Your task to perform on an android device: Open calendar and show me the second week of next month Image 0: 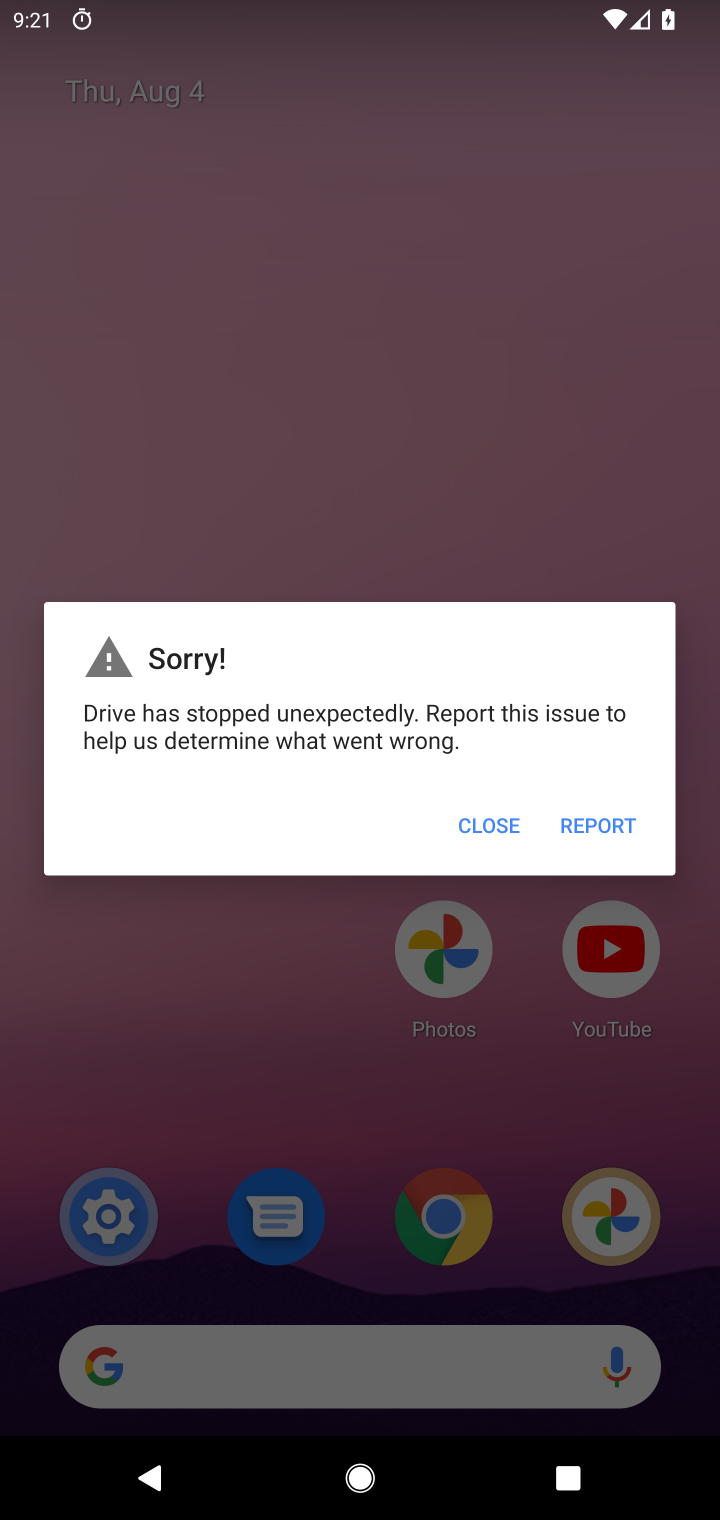
Step 0: press home button
Your task to perform on an android device: Open calendar and show me the second week of next month Image 1: 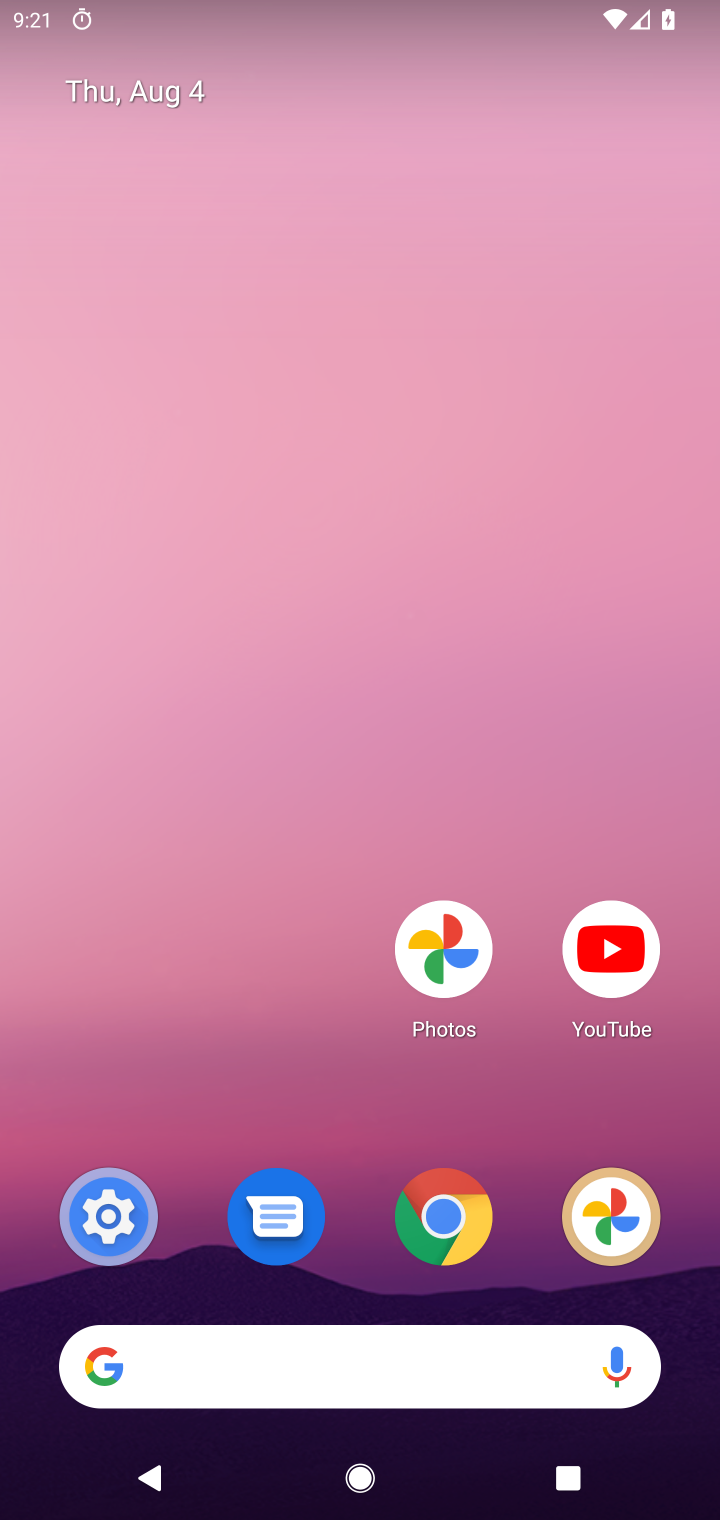
Step 1: drag from (368, 1202) to (336, 78)
Your task to perform on an android device: Open calendar and show me the second week of next month Image 2: 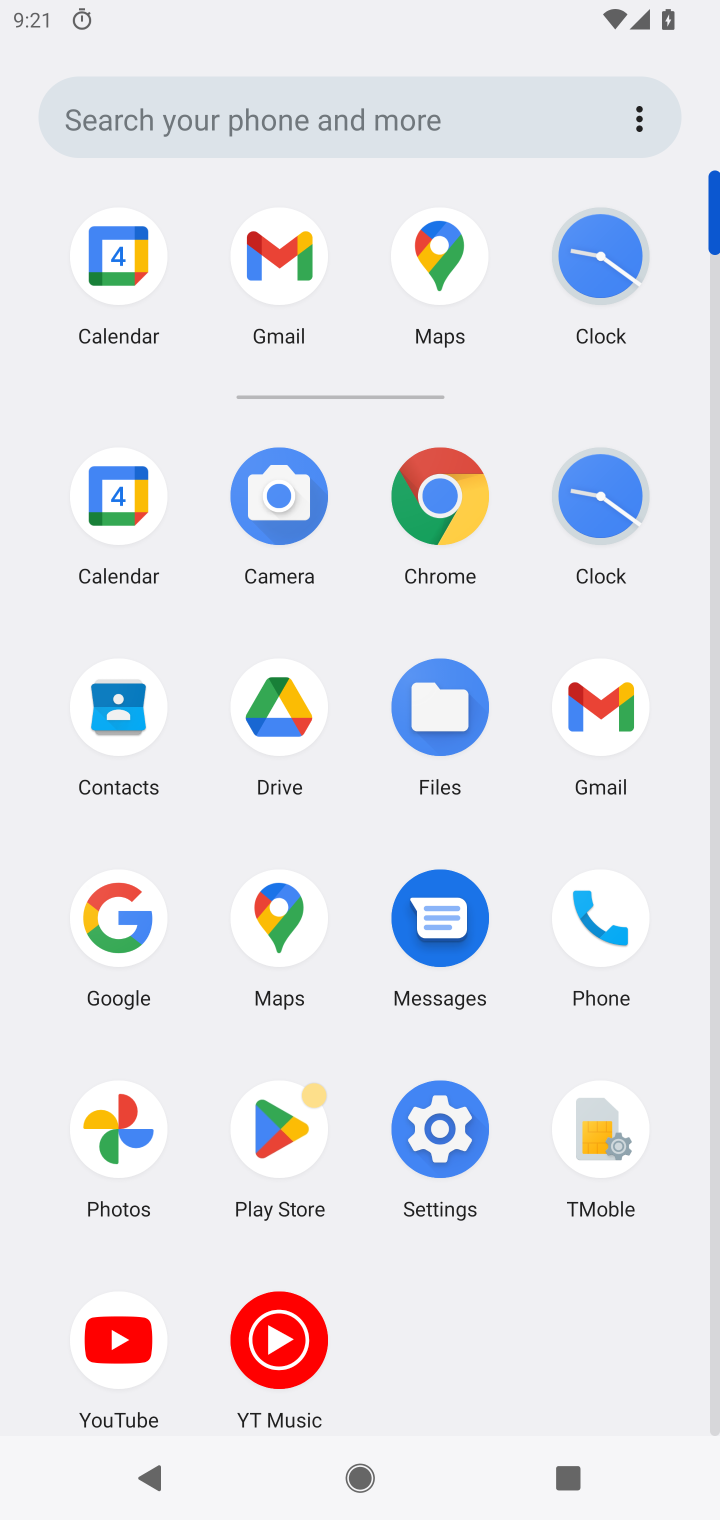
Step 2: click (119, 509)
Your task to perform on an android device: Open calendar and show me the second week of next month Image 3: 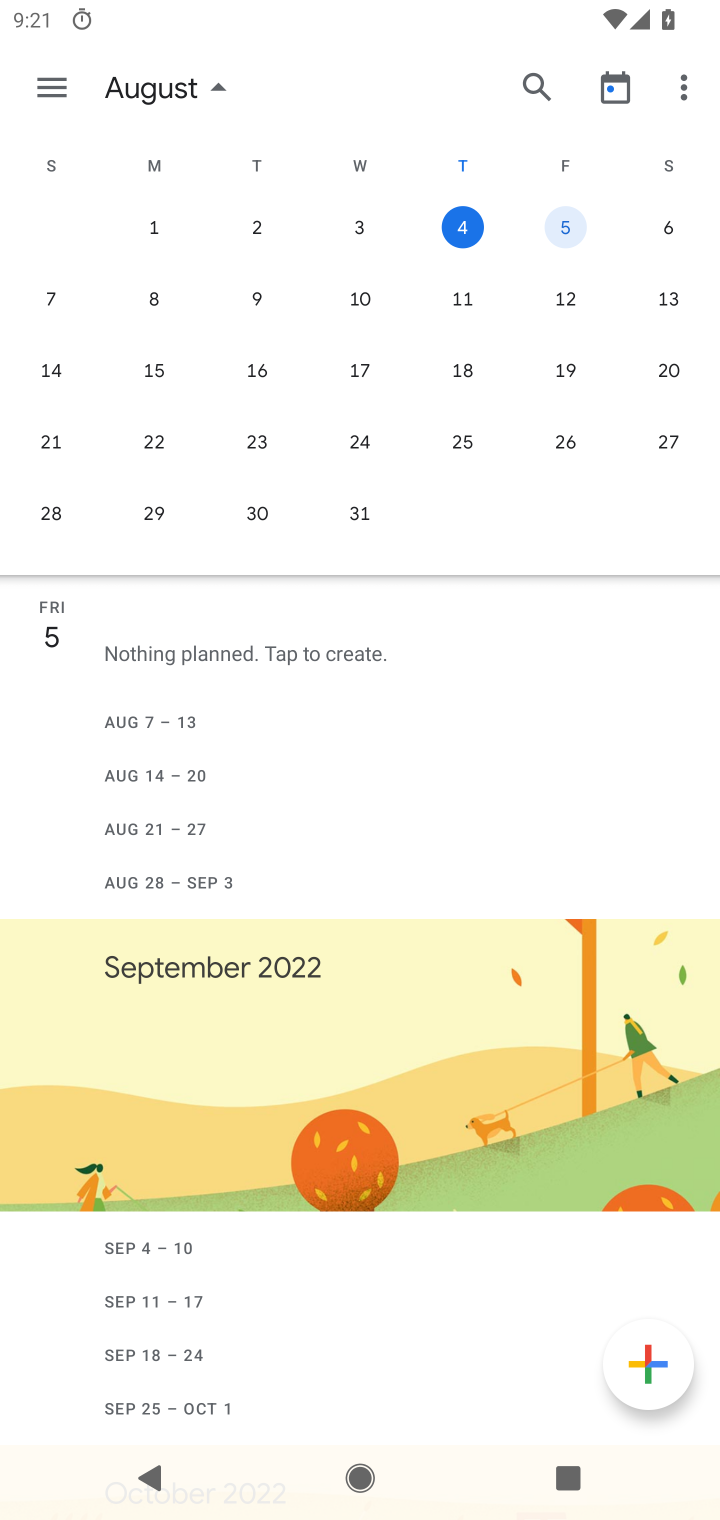
Step 3: drag from (574, 368) to (61, 324)
Your task to perform on an android device: Open calendar and show me the second week of next month Image 4: 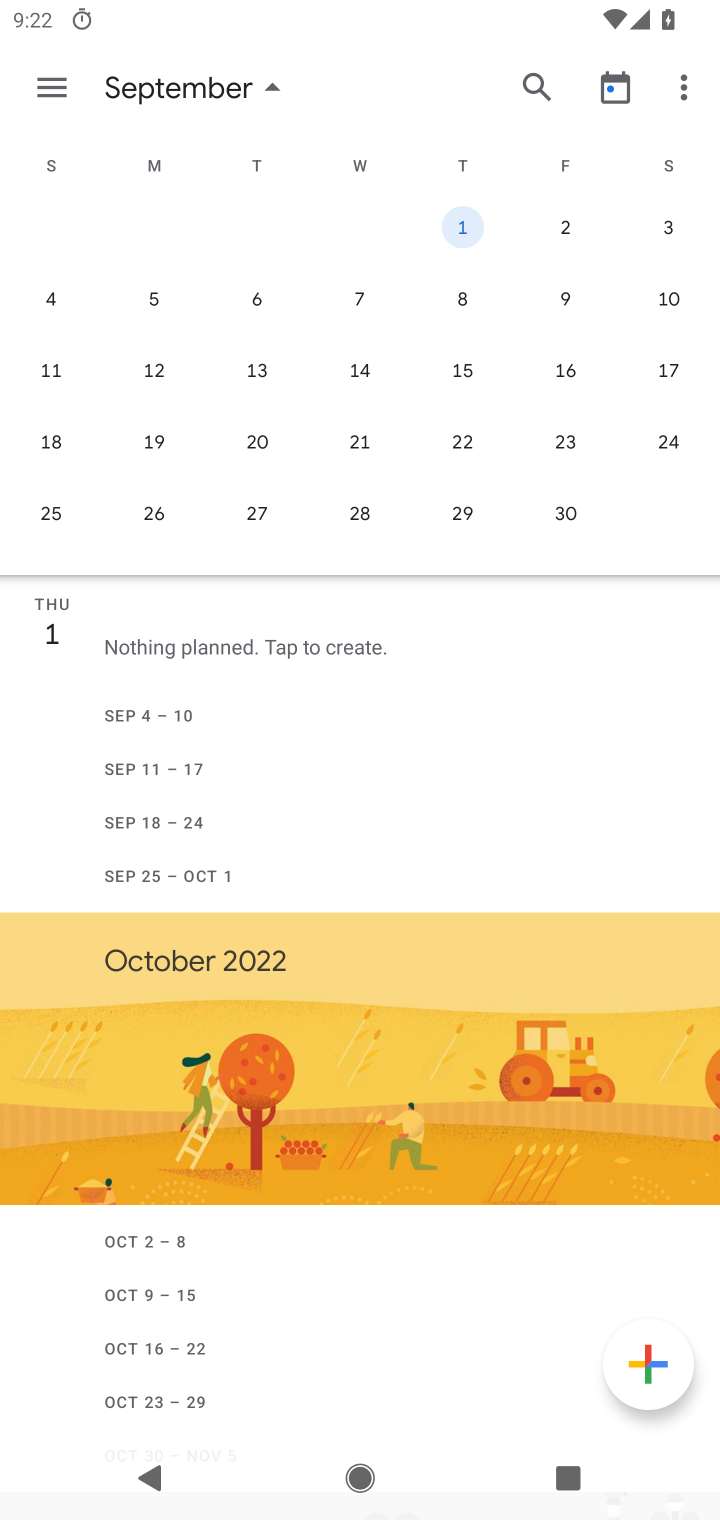
Step 4: click (160, 360)
Your task to perform on an android device: Open calendar and show me the second week of next month Image 5: 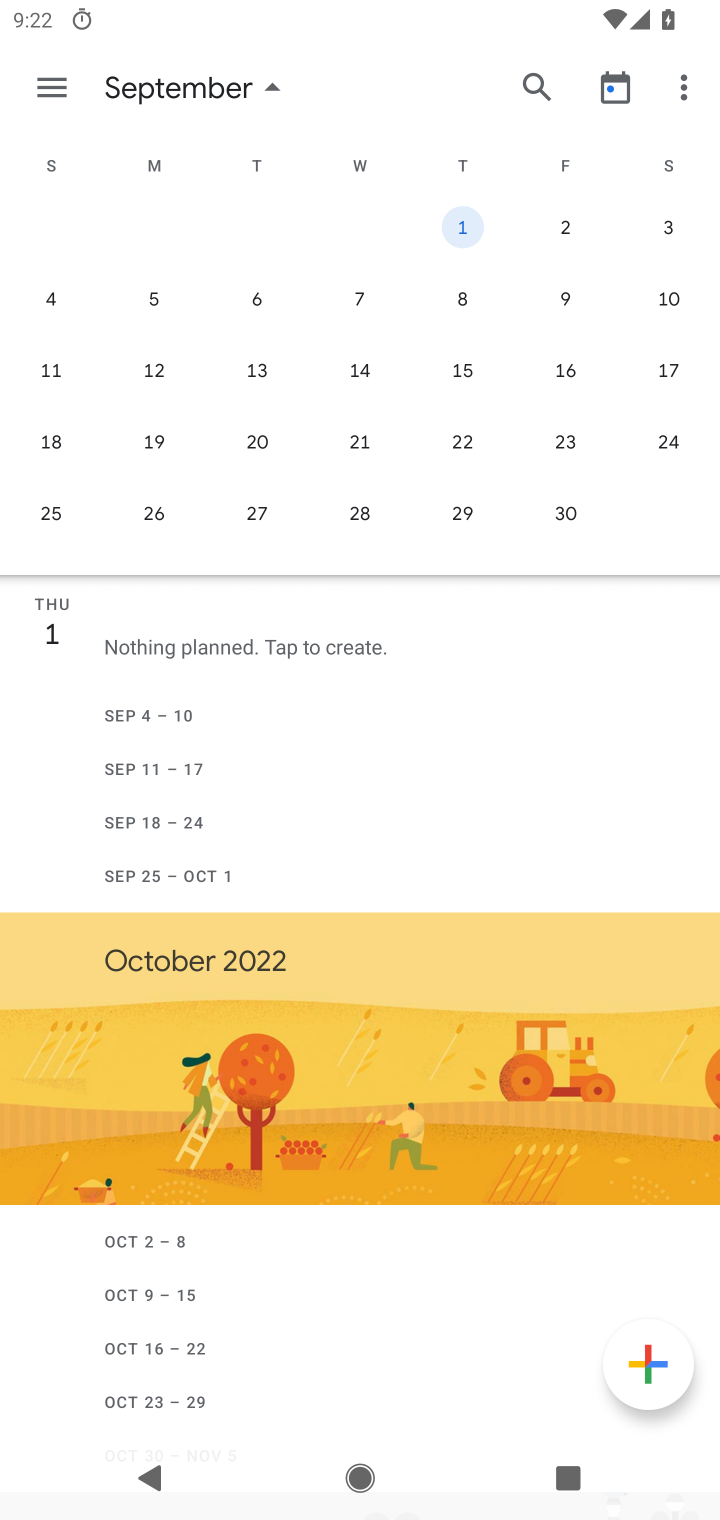
Step 5: click (155, 363)
Your task to perform on an android device: Open calendar and show me the second week of next month Image 6: 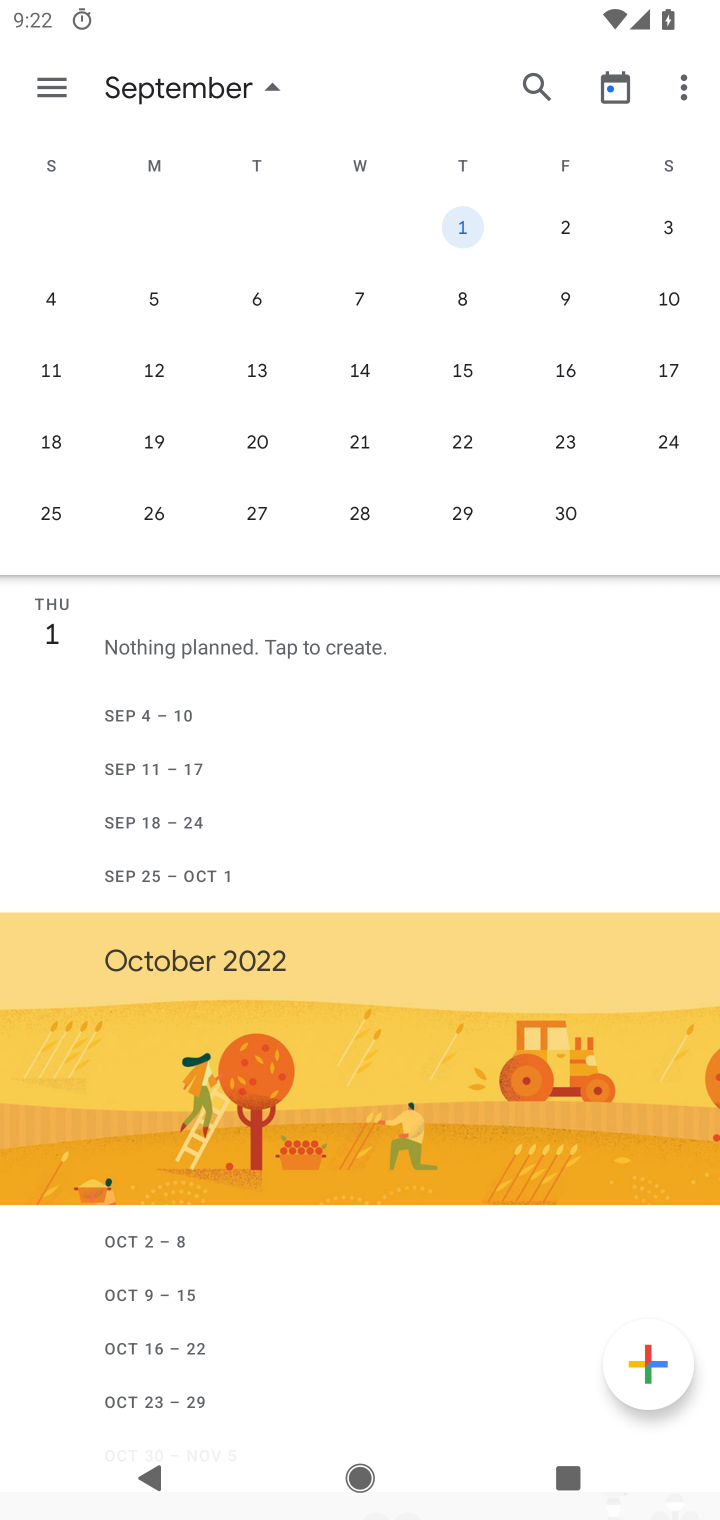
Step 6: click (157, 367)
Your task to perform on an android device: Open calendar and show me the second week of next month Image 7: 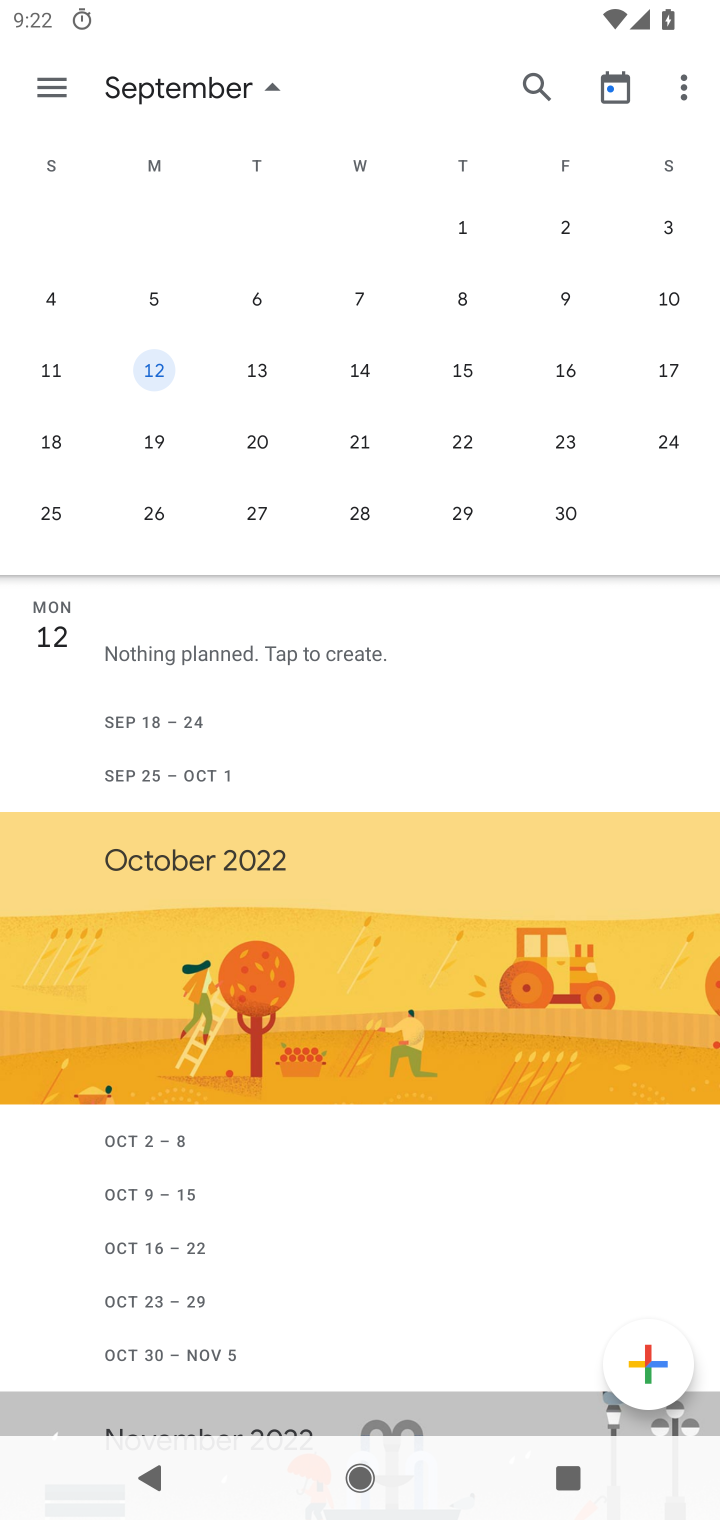
Step 7: click (50, 82)
Your task to perform on an android device: Open calendar and show me the second week of next month Image 8: 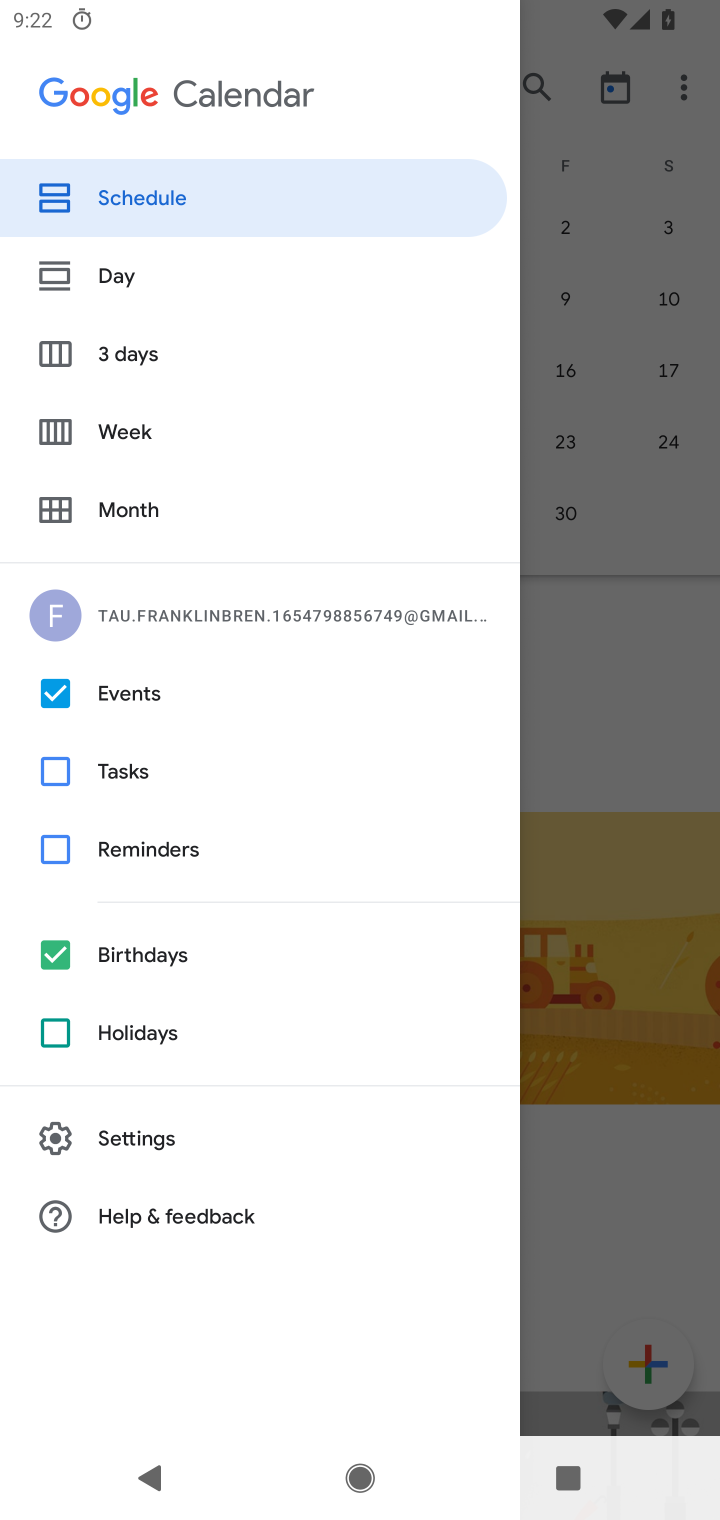
Step 8: click (131, 433)
Your task to perform on an android device: Open calendar and show me the second week of next month Image 9: 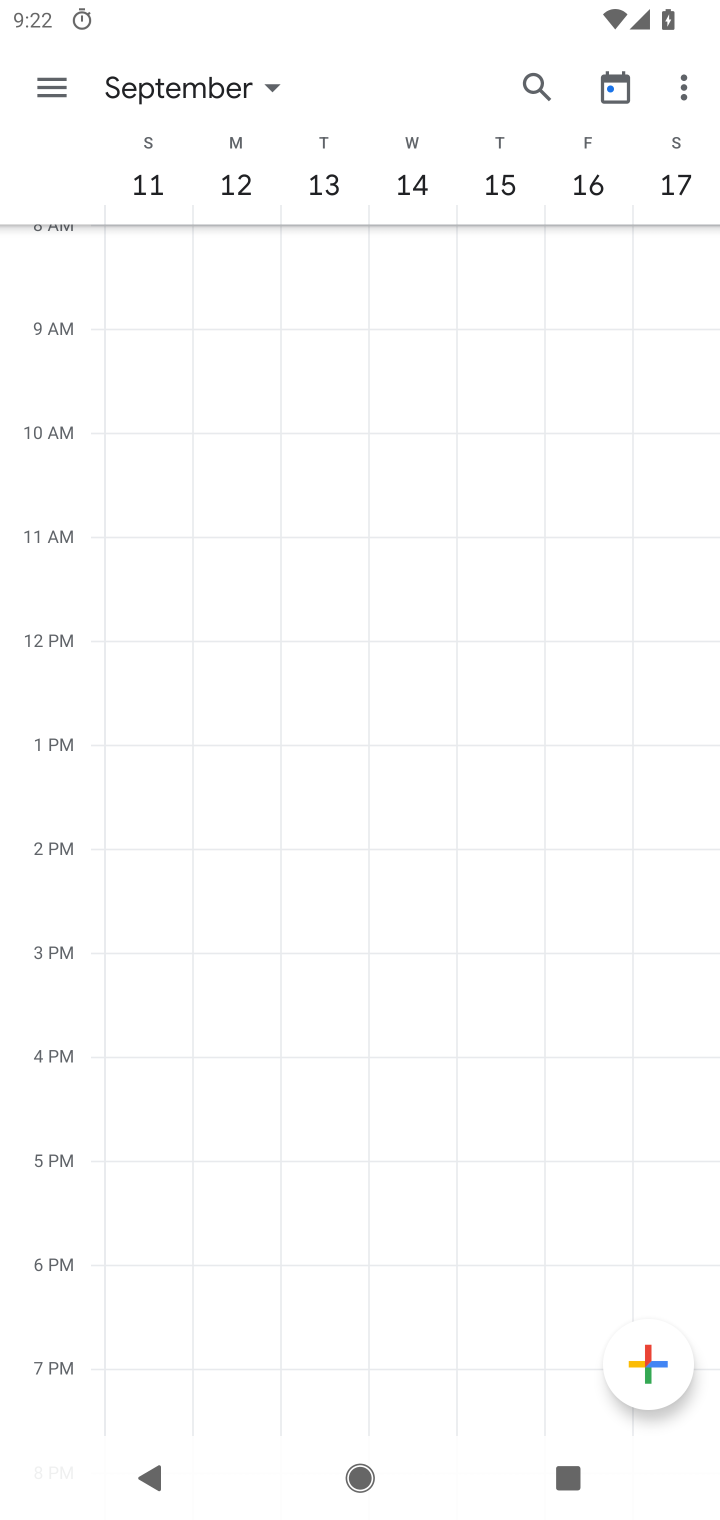
Step 9: task complete